Your task to perform on an android device: turn on sleep mode Image 0: 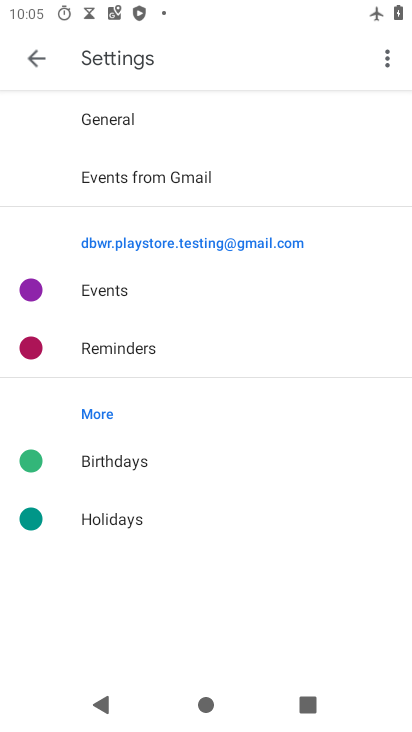
Step 0: press home button
Your task to perform on an android device: turn on sleep mode Image 1: 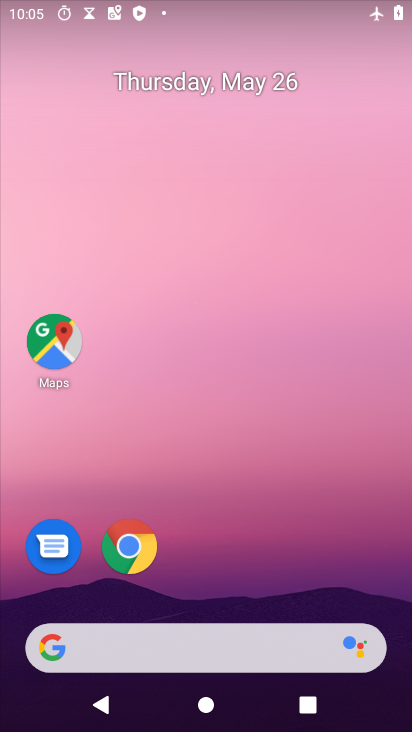
Step 1: drag from (367, 596) to (352, 113)
Your task to perform on an android device: turn on sleep mode Image 2: 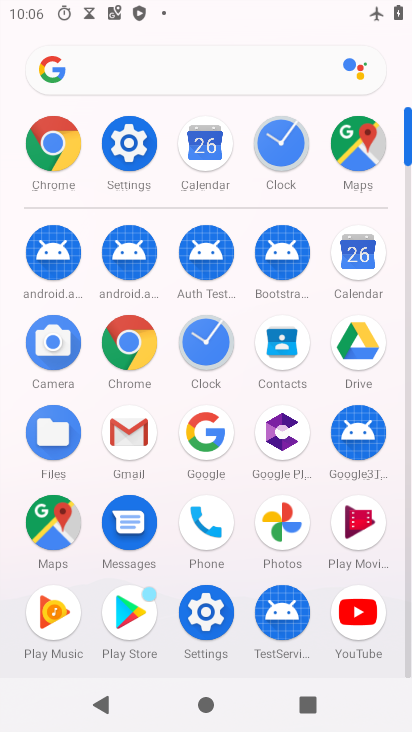
Step 2: click (213, 611)
Your task to perform on an android device: turn on sleep mode Image 3: 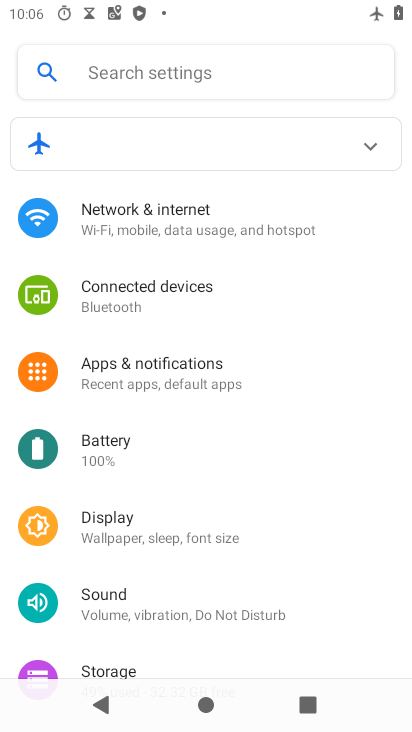
Step 3: click (153, 73)
Your task to perform on an android device: turn on sleep mode Image 4: 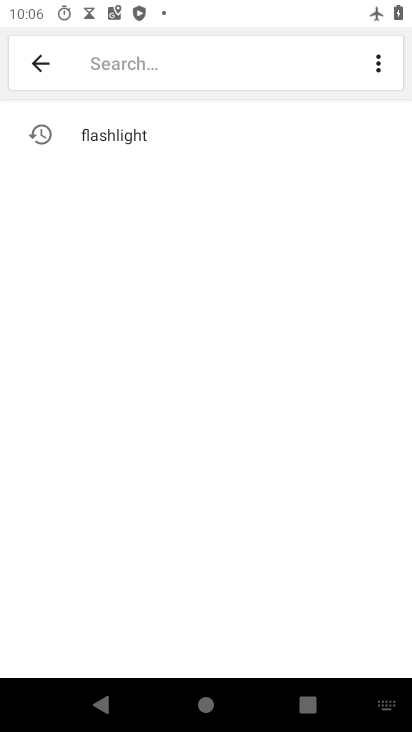
Step 4: type "sleep mode"
Your task to perform on an android device: turn on sleep mode Image 5: 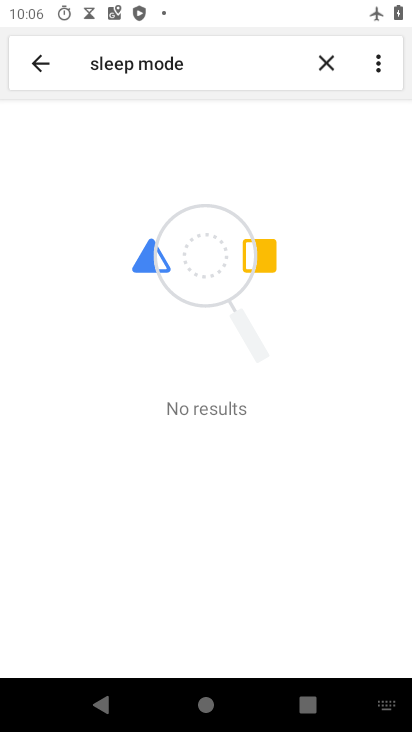
Step 5: task complete